Your task to perform on an android device: toggle sleep mode Image 0: 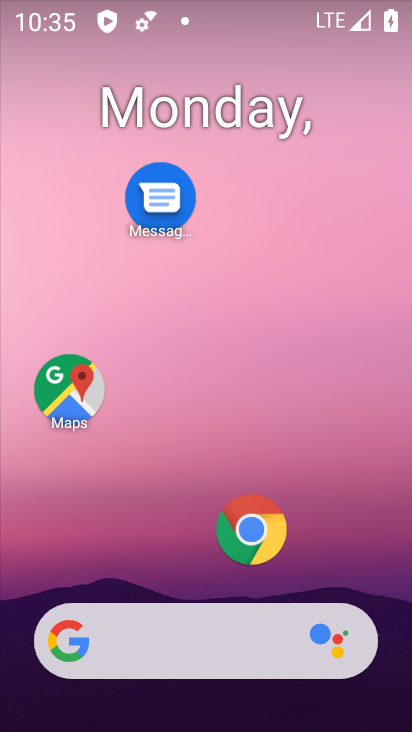
Step 0: drag from (190, 547) to (320, 172)
Your task to perform on an android device: toggle sleep mode Image 1: 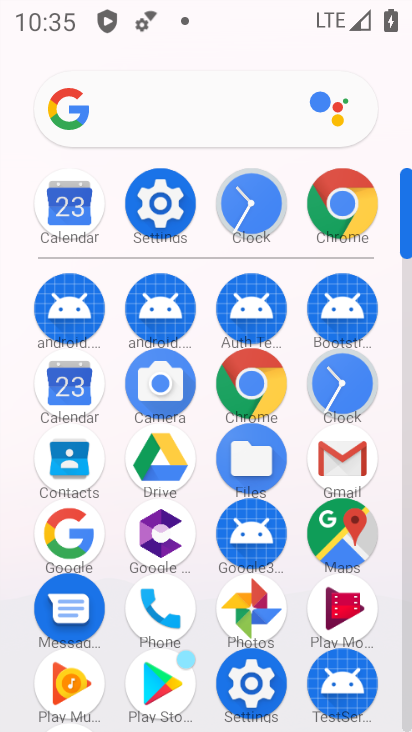
Step 1: click (182, 203)
Your task to perform on an android device: toggle sleep mode Image 2: 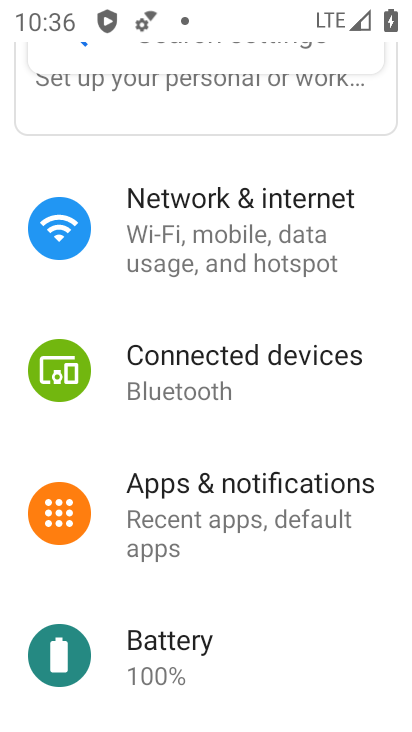
Step 2: task complete